Your task to perform on an android device: refresh tabs in the chrome app Image 0: 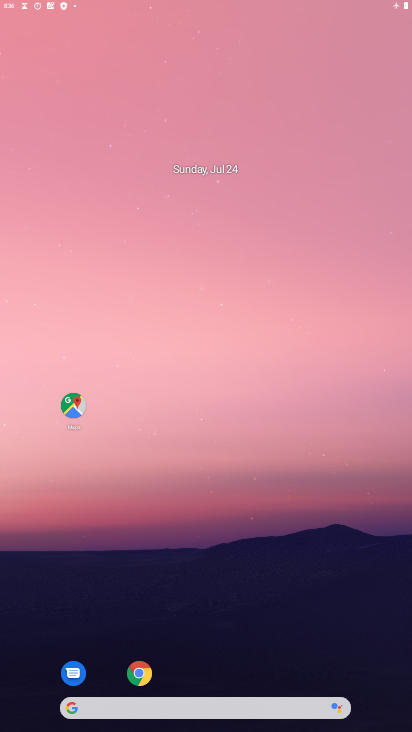
Step 0: click (199, 85)
Your task to perform on an android device: refresh tabs in the chrome app Image 1: 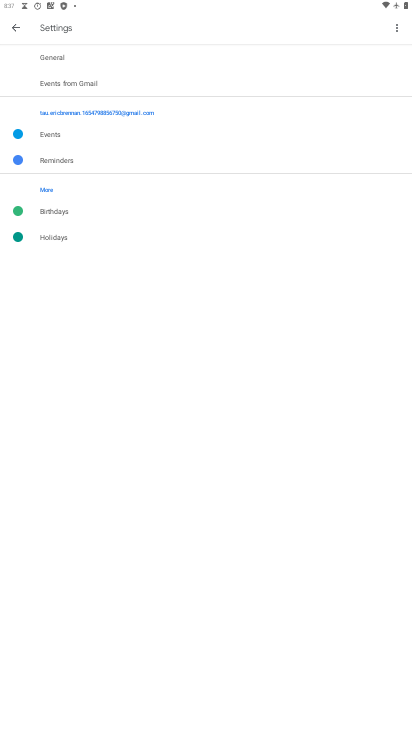
Step 1: drag from (122, 570) to (183, 217)
Your task to perform on an android device: refresh tabs in the chrome app Image 2: 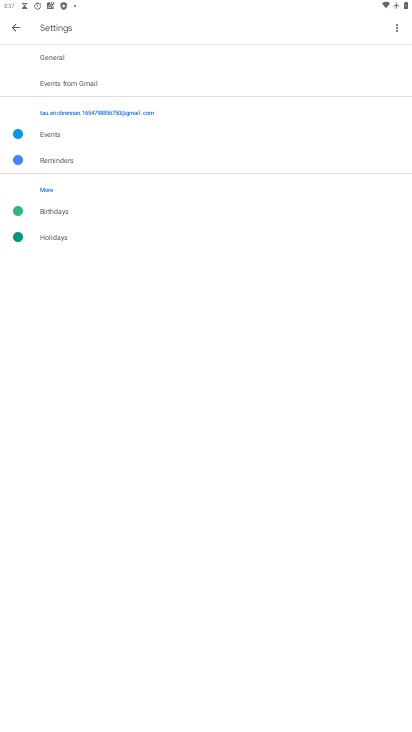
Step 2: drag from (229, 548) to (258, 298)
Your task to perform on an android device: refresh tabs in the chrome app Image 3: 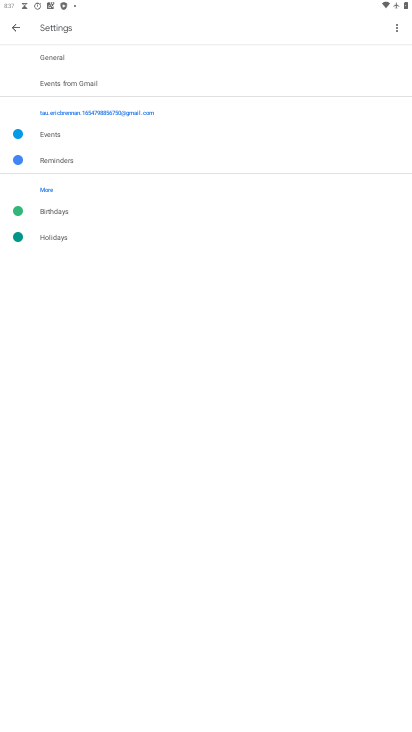
Step 3: press home button
Your task to perform on an android device: refresh tabs in the chrome app Image 4: 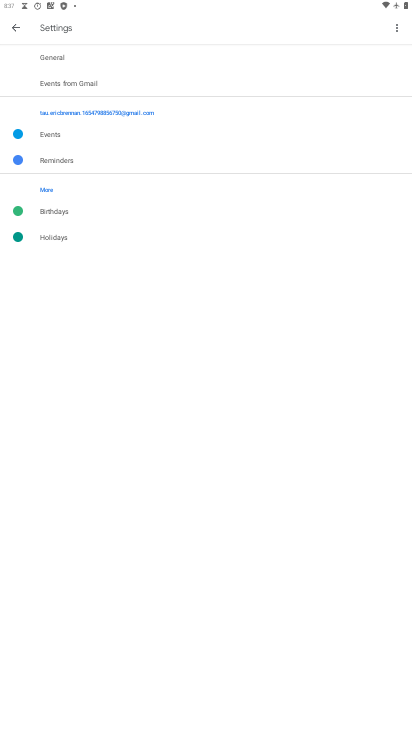
Step 4: drag from (209, 523) to (306, 162)
Your task to perform on an android device: refresh tabs in the chrome app Image 5: 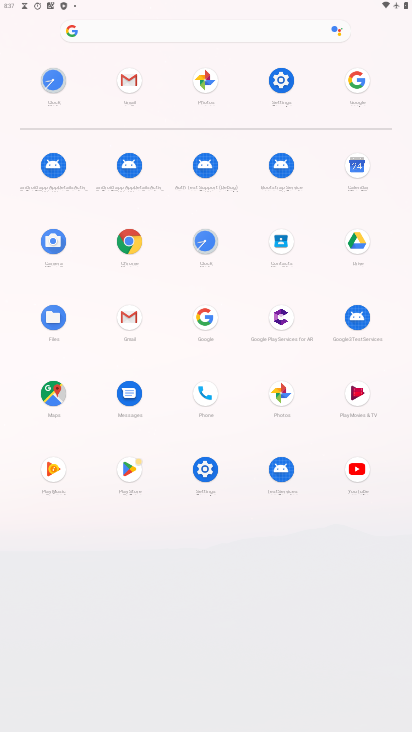
Step 5: drag from (201, 519) to (240, 188)
Your task to perform on an android device: refresh tabs in the chrome app Image 6: 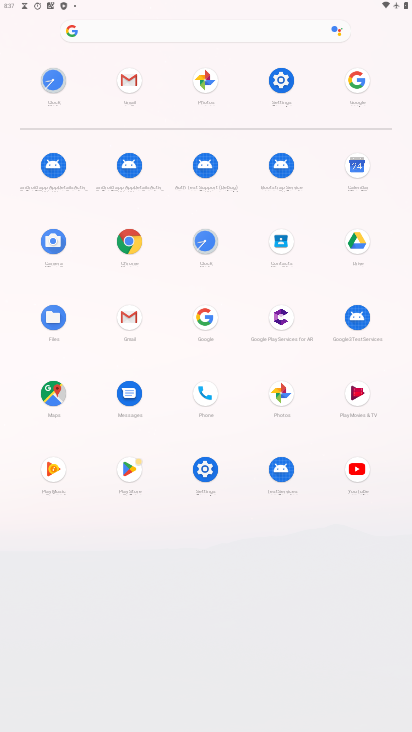
Step 6: click (128, 241)
Your task to perform on an android device: refresh tabs in the chrome app Image 7: 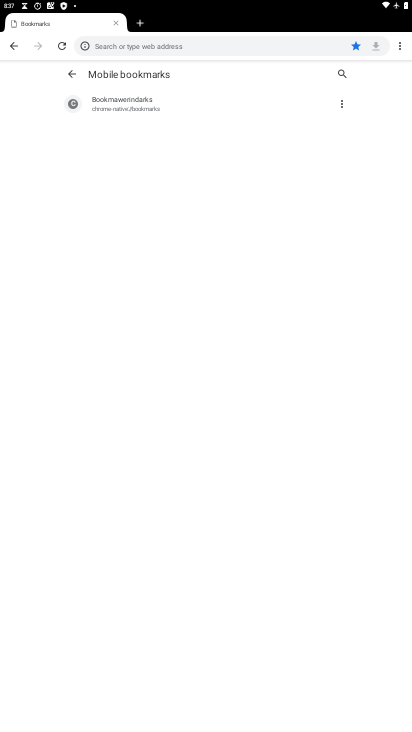
Step 7: drag from (358, 630) to (356, 295)
Your task to perform on an android device: refresh tabs in the chrome app Image 8: 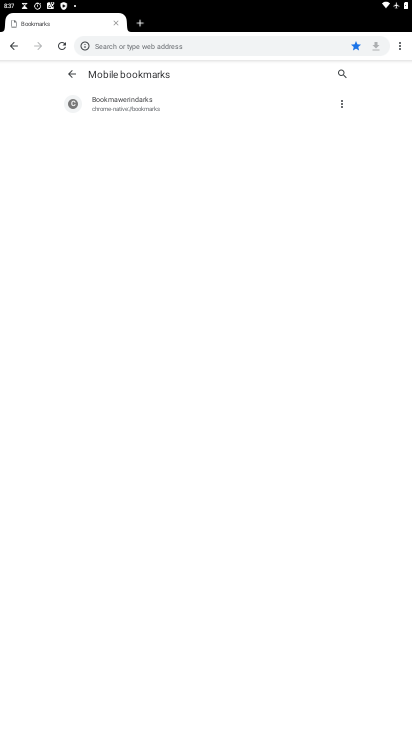
Step 8: click (61, 43)
Your task to perform on an android device: refresh tabs in the chrome app Image 9: 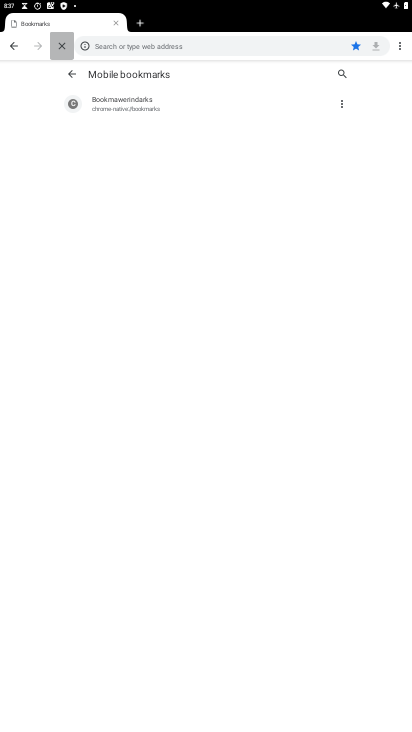
Step 9: task complete